Your task to perform on an android device: open chrome and create a bookmark for the current page Image 0: 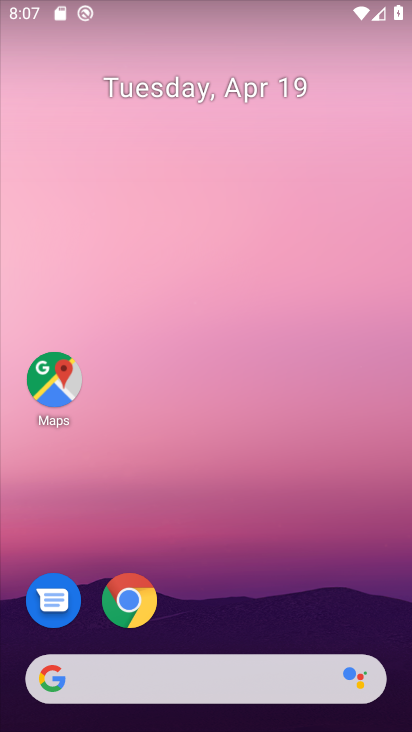
Step 0: drag from (358, 599) to (345, 65)
Your task to perform on an android device: open chrome and create a bookmark for the current page Image 1: 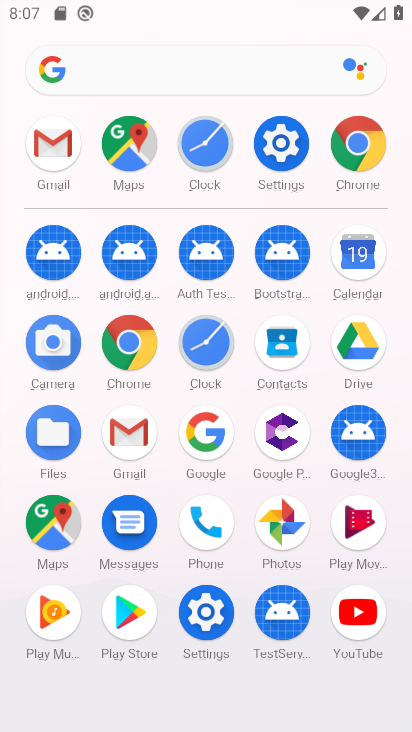
Step 1: click (363, 153)
Your task to perform on an android device: open chrome and create a bookmark for the current page Image 2: 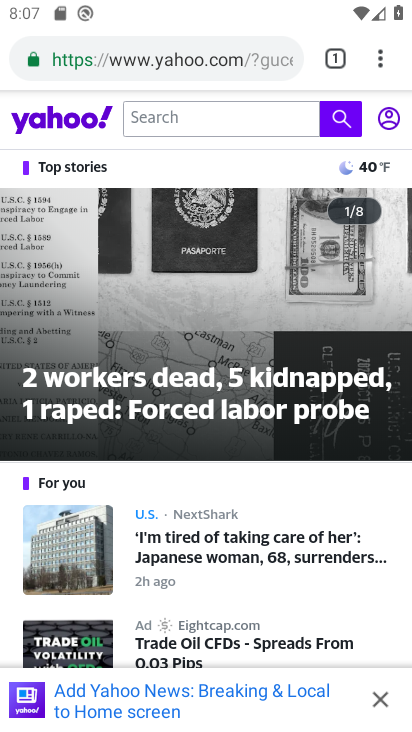
Step 2: click (384, 58)
Your task to perform on an android device: open chrome and create a bookmark for the current page Image 3: 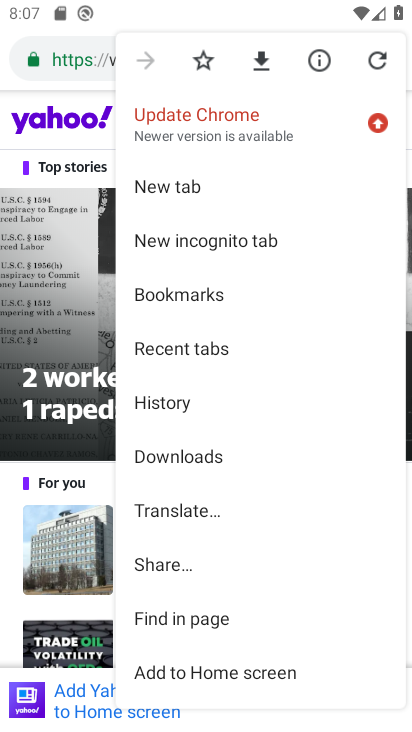
Step 3: click (211, 55)
Your task to perform on an android device: open chrome and create a bookmark for the current page Image 4: 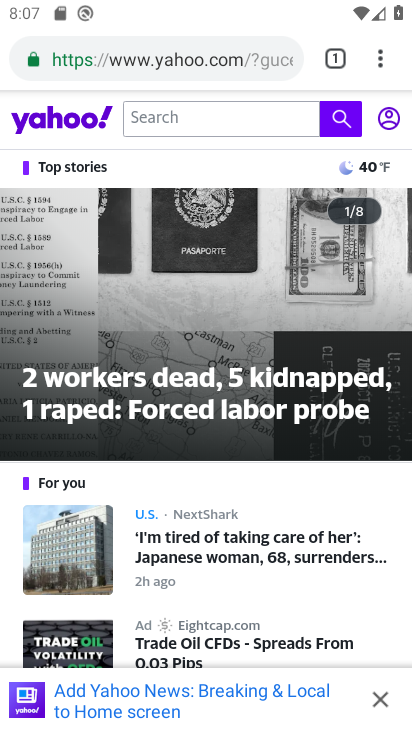
Step 4: task complete